Your task to perform on an android device: toggle airplane mode Image 0: 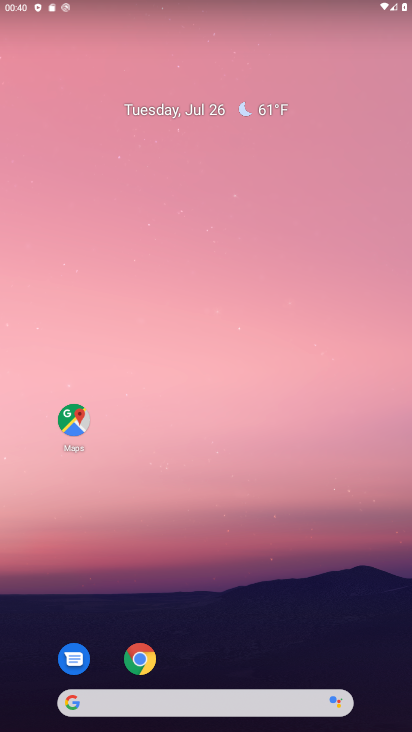
Step 0: drag from (312, 655) to (299, 115)
Your task to perform on an android device: toggle airplane mode Image 1: 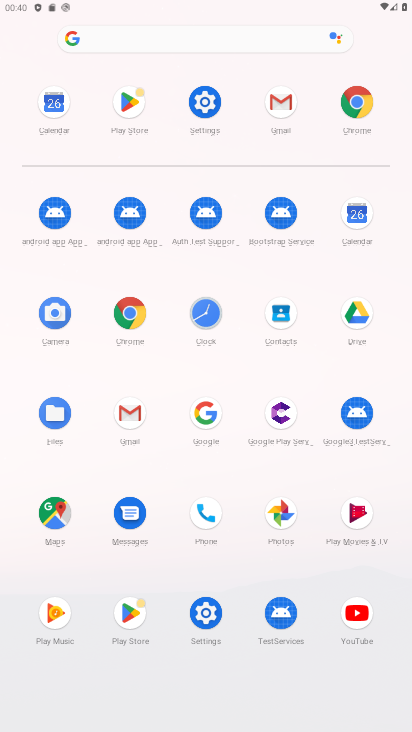
Step 1: click (216, 104)
Your task to perform on an android device: toggle airplane mode Image 2: 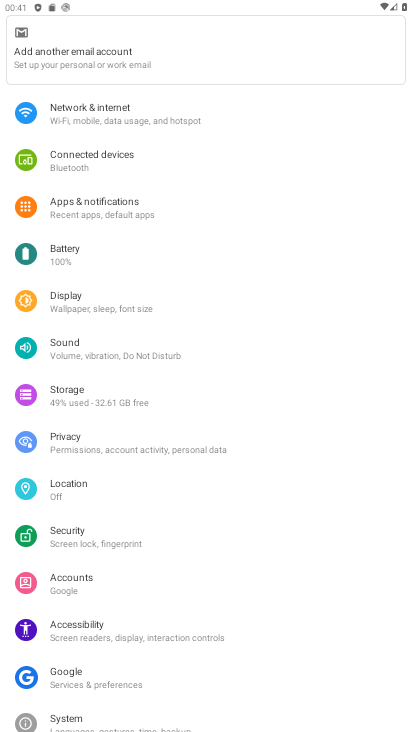
Step 2: click (149, 126)
Your task to perform on an android device: toggle airplane mode Image 3: 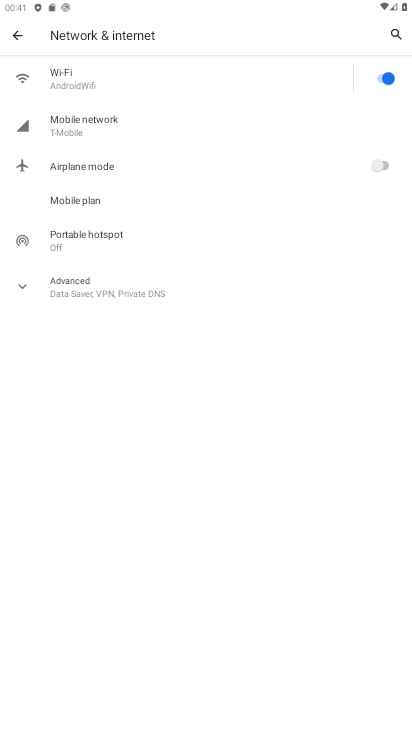
Step 3: click (382, 169)
Your task to perform on an android device: toggle airplane mode Image 4: 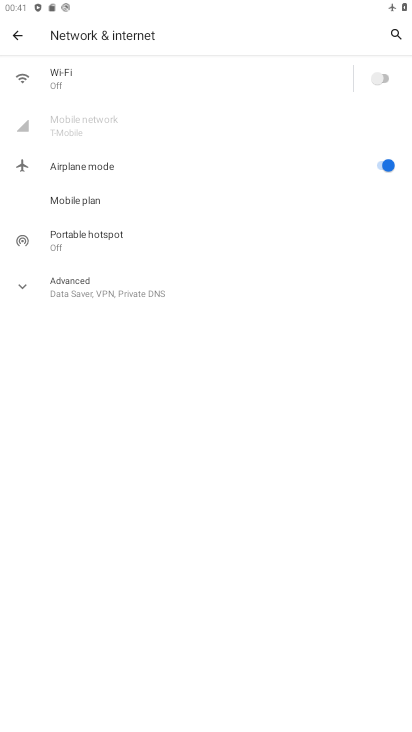
Step 4: task complete